Your task to perform on an android device: Search for pizza restaurants on Maps Image 0: 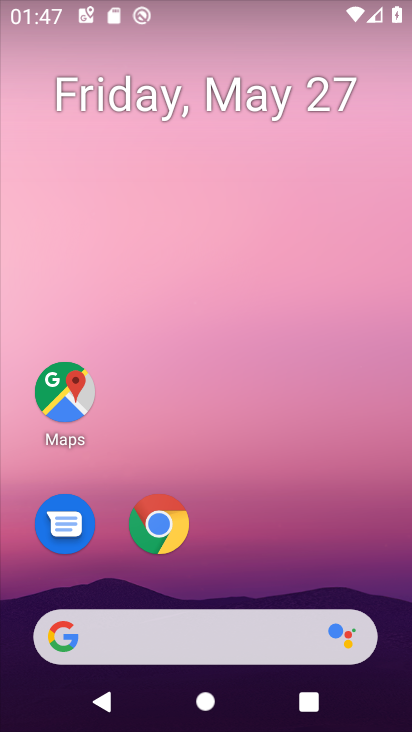
Step 0: click (66, 398)
Your task to perform on an android device: Search for pizza restaurants on Maps Image 1: 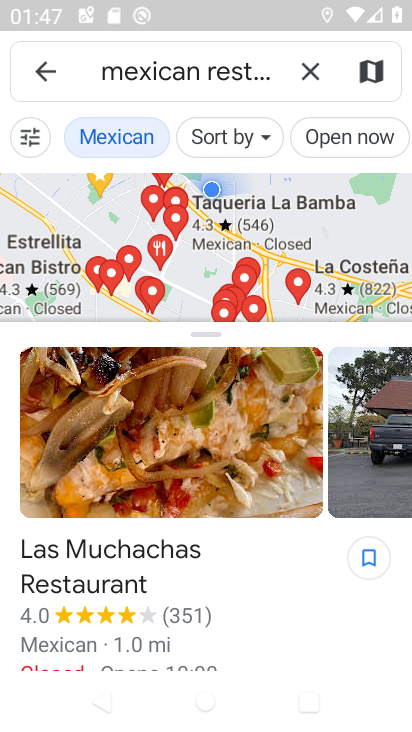
Step 1: click (308, 61)
Your task to perform on an android device: Search for pizza restaurants on Maps Image 2: 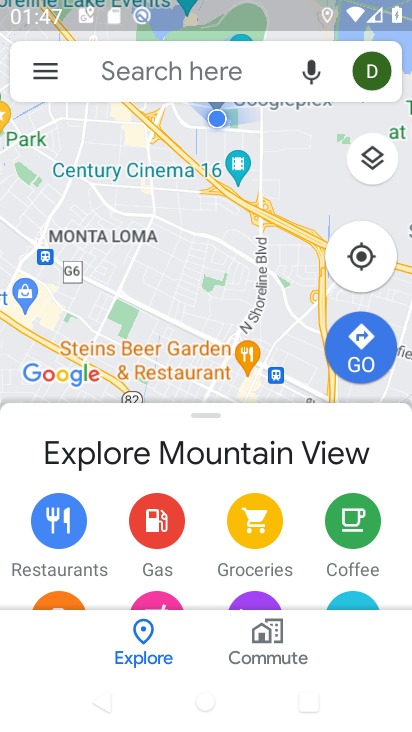
Step 2: click (211, 70)
Your task to perform on an android device: Search for pizza restaurants on Maps Image 3: 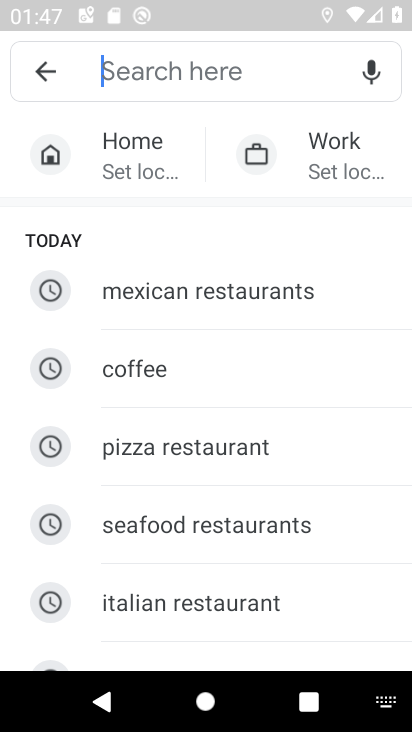
Step 3: click (219, 441)
Your task to perform on an android device: Search for pizza restaurants on Maps Image 4: 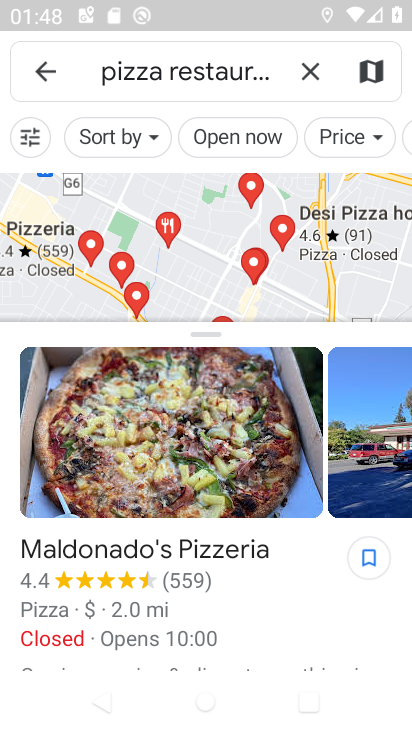
Step 4: task complete